Your task to perform on an android device: Go to wifi settings Image 0: 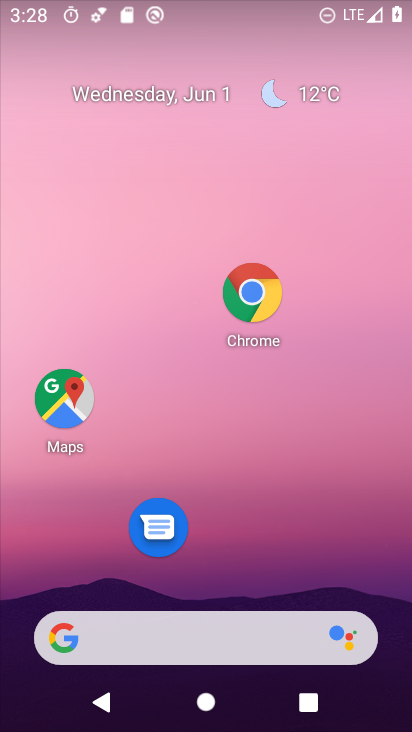
Step 0: drag from (203, 582) to (233, 20)
Your task to perform on an android device: Go to wifi settings Image 1: 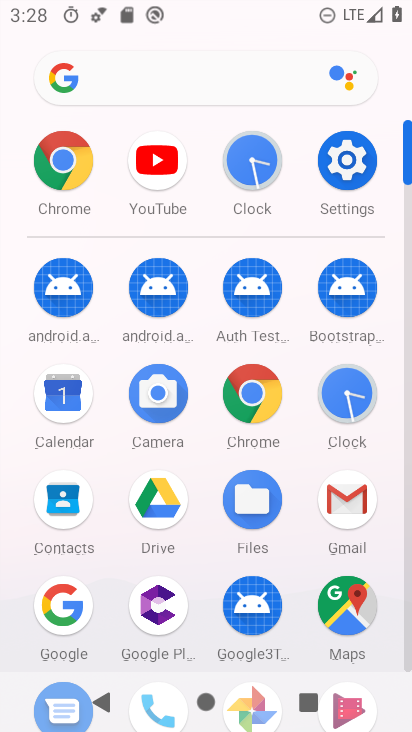
Step 1: click (353, 169)
Your task to perform on an android device: Go to wifi settings Image 2: 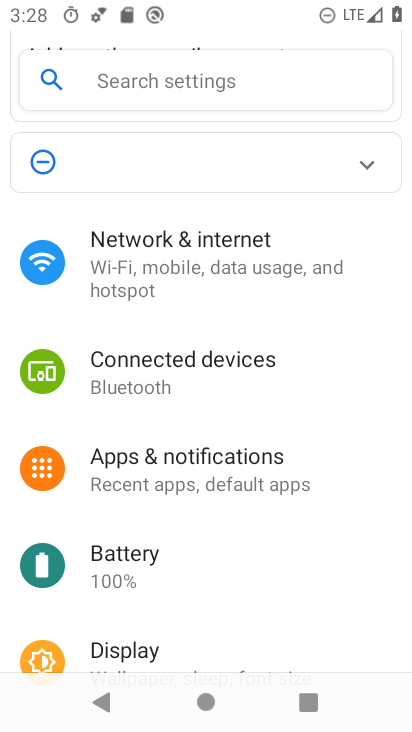
Step 2: click (224, 286)
Your task to perform on an android device: Go to wifi settings Image 3: 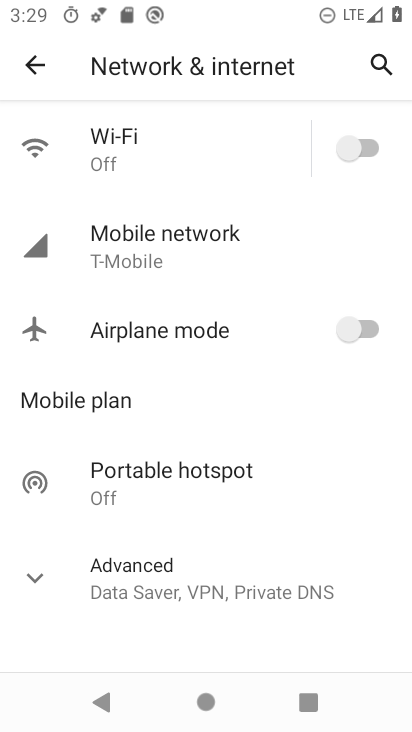
Step 3: click (204, 153)
Your task to perform on an android device: Go to wifi settings Image 4: 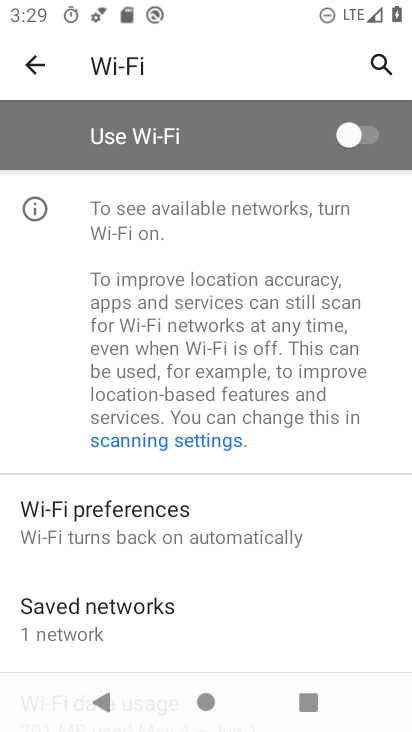
Step 4: task complete